Your task to perform on an android device: Open the Play Movies app and select the watchlist tab. Image 0: 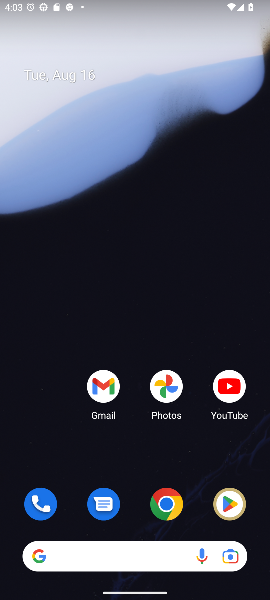
Step 0: drag from (118, 476) to (119, 108)
Your task to perform on an android device: Open the Play Movies app and select the watchlist tab. Image 1: 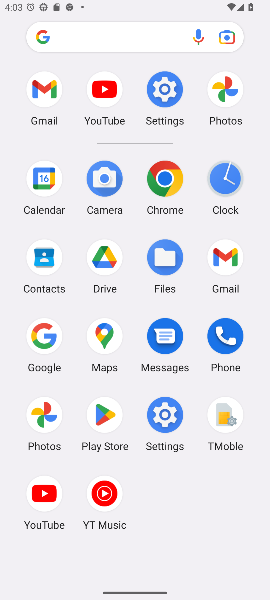
Step 1: task complete